Your task to perform on an android device: toggle airplane mode Image 0: 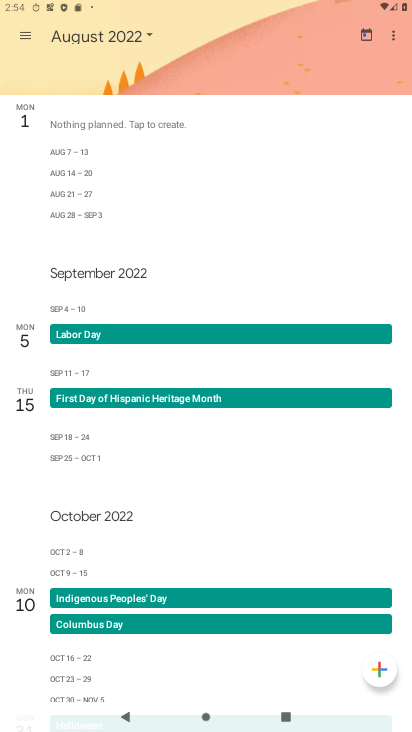
Step 0: press home button
Your task to perform on an android device: toggle airplane mode Image 1: 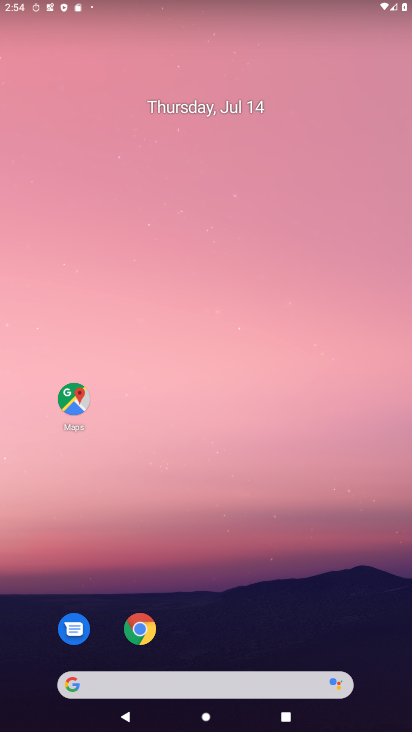
Step 1: drag from (246, 625) to (294, 218)
Your task to perform on an android device: toggle airplane mode Image 2: 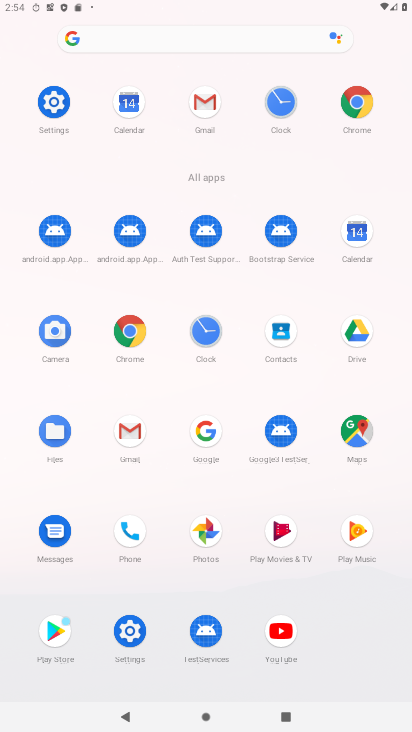
Step 2: click (54, 97)
Your task to perform on an android device: toggle airplane mode Image 3: 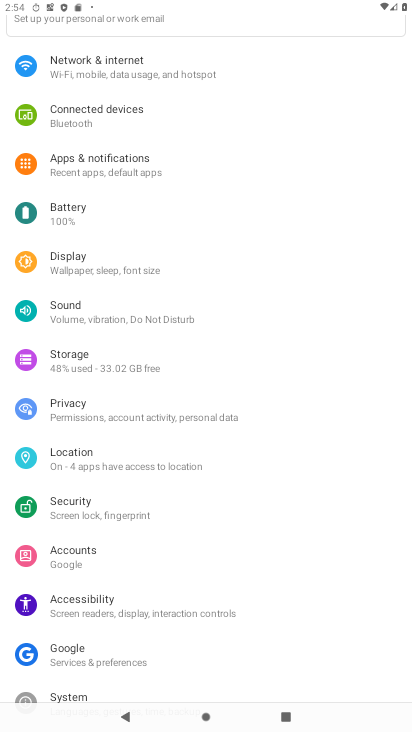
Step 3: click (99, 74)
Your task to perform on an android device: toggle airplane mode Image 4: 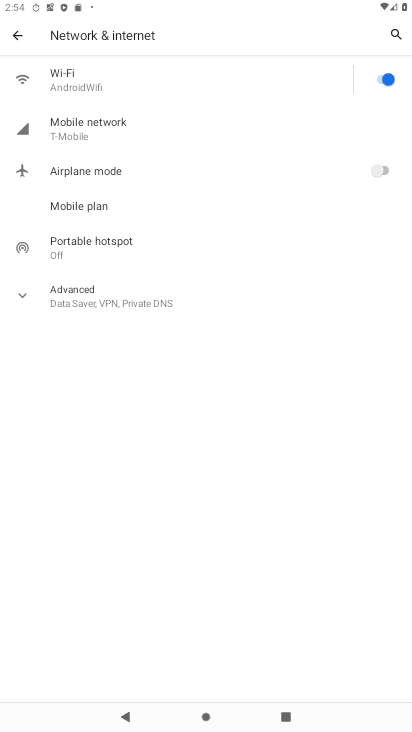
Step 4: click (382, 174)
Your task to perform on an android device: toggle airplane mode Image 5: 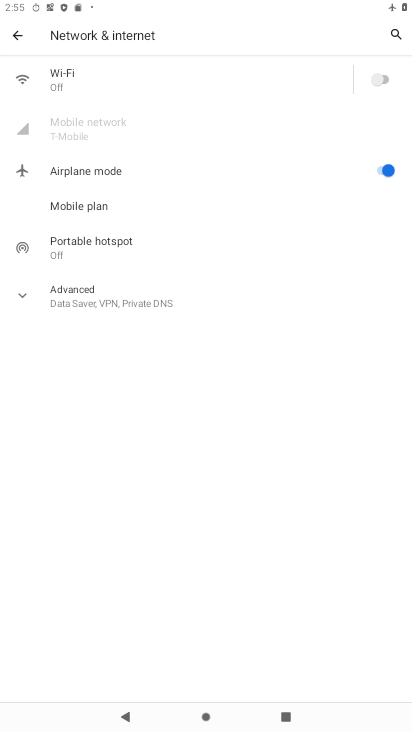
Step 5: task complete